Your task to perform on an android device: open chrome privacy settings Image 0: 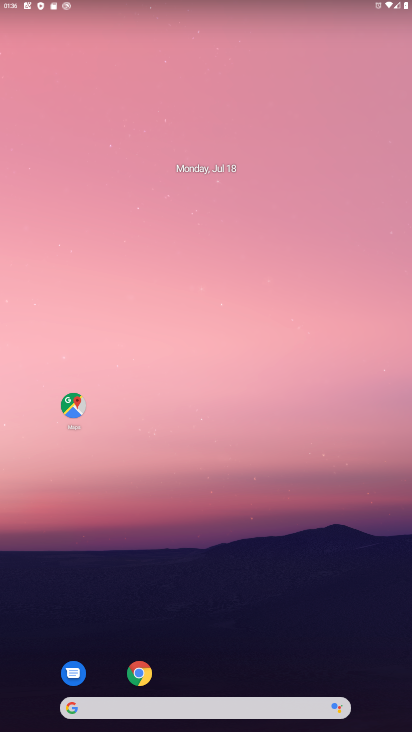
Step 0: drag from (235, 637) to (233, 243)
Your task to perform on an android device: open chrome privacy settings Image 1: 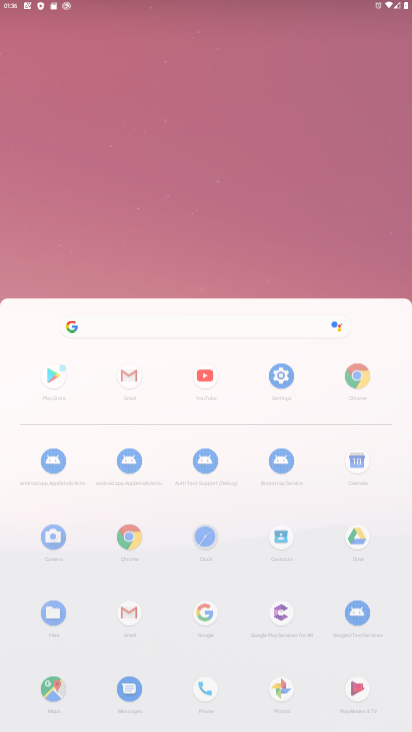
Step 1: click (233, 235)
Your task to perform on an android device: open chrome privacy settings Image 2: 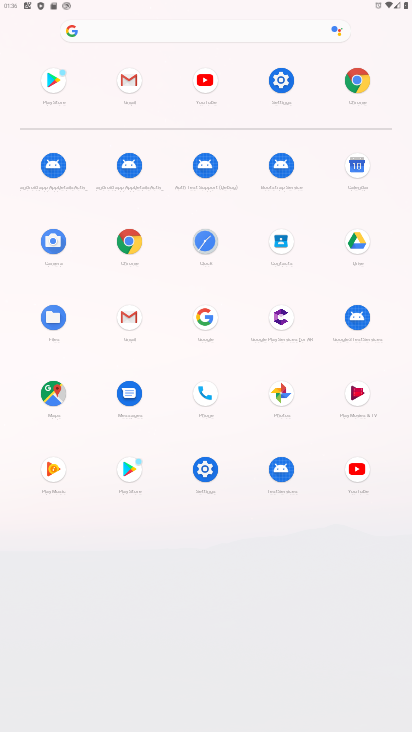
Step 2: click (379, 92)
Your task to perform on an android device: open chrome privacy settings Image 3: 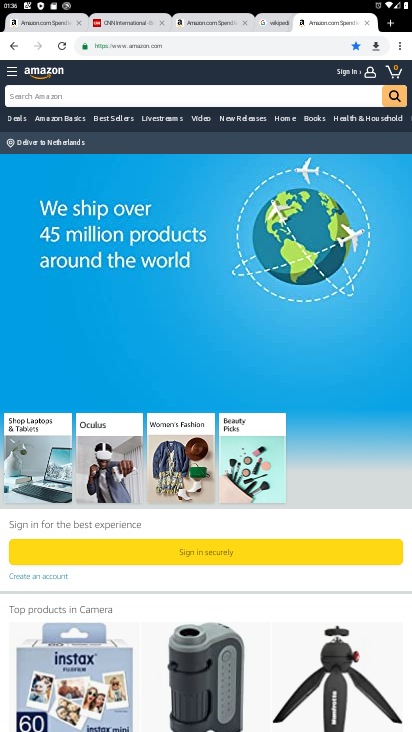
Step 3: click (296, 45)
Your task to perform on an android device: open chrome privacy settings Image 4: 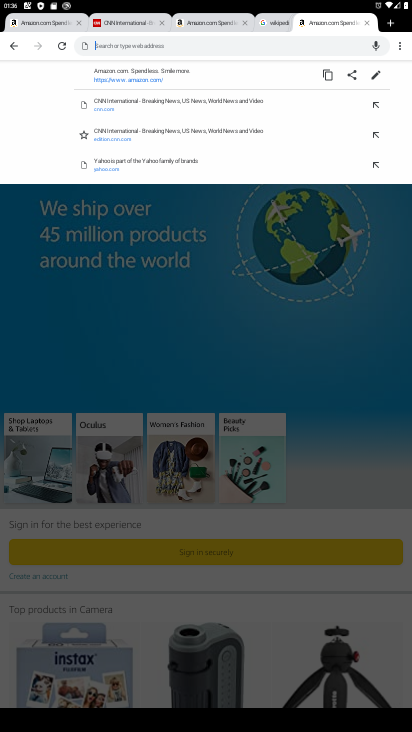
Step 4: click (404, 44)
Your task to perform on an android device: open chrome privacy settings Image 5: 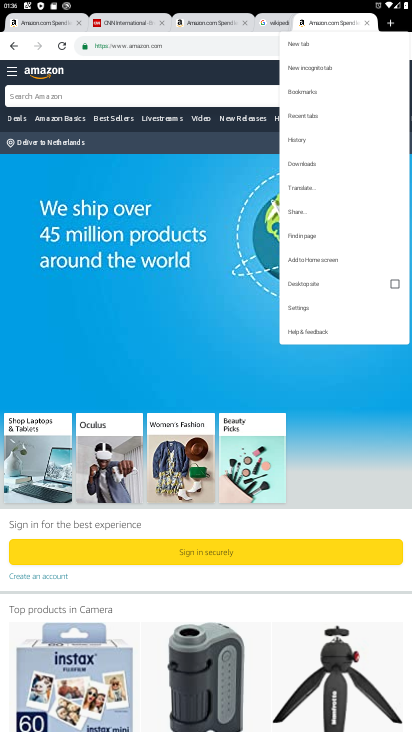
Step 5: click (316, 301)
Your task to perform on an android device: open chrome privacy settings Image 6: 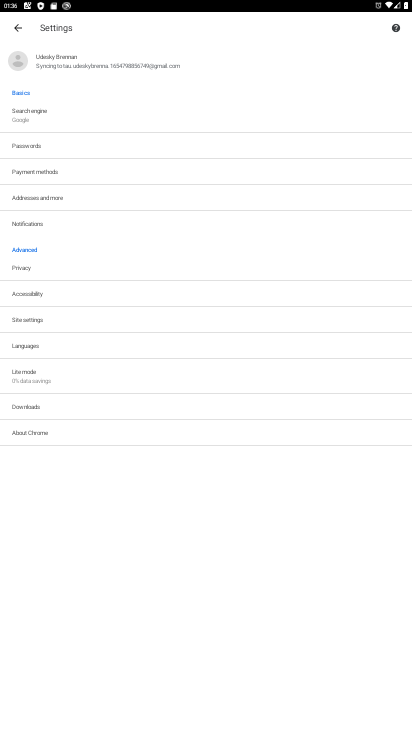
Step 6: click (73, 268)
Your task to perform on an android device: open chrome privacy settings Image 7: 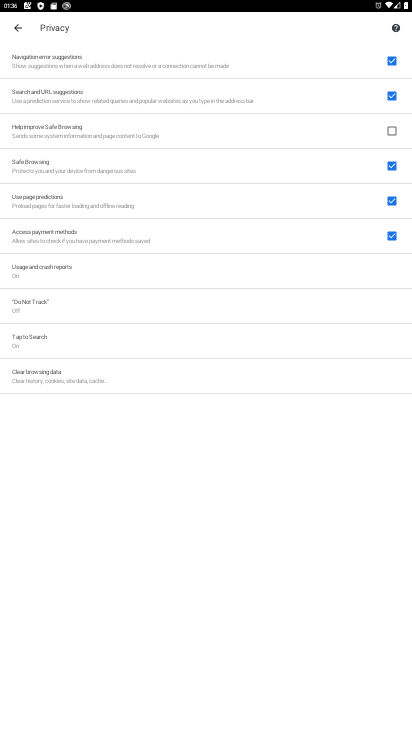
Step 7: task complete